Your task to perform on an android device: What's the weather going to be tomorrow? Image 0: 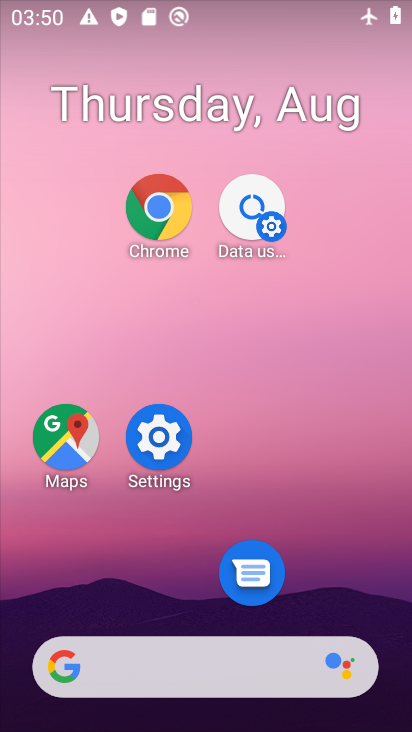
Step 0: drag from (326, 611) to (257, 134)
Your task to perform on an android device: What's the weather going to be tomorrow? Image 1: 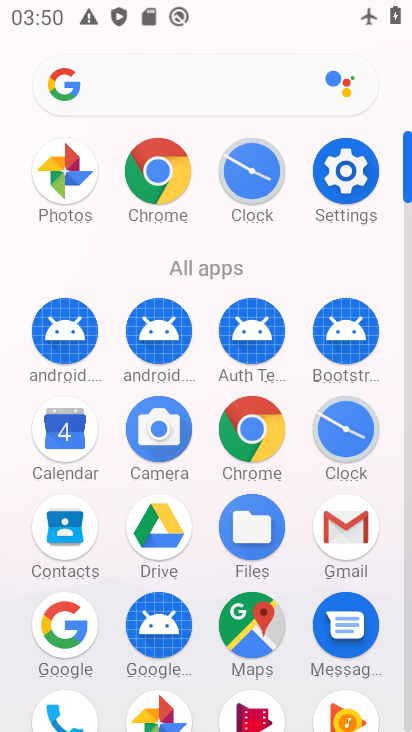
Step 1: click (161, 170)
Your task to perform on an android device: What's the weather going to be tomorrow? Image 2: 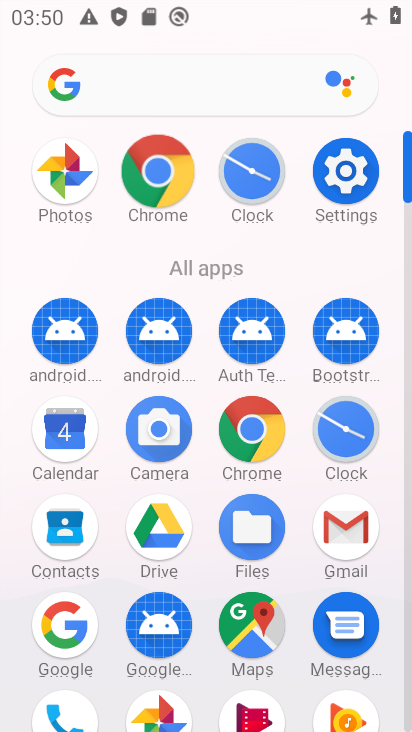
Step 2: click (161, 171)
Your task to perform on an android device: What's the weather going to be tomorrow? Image 3: 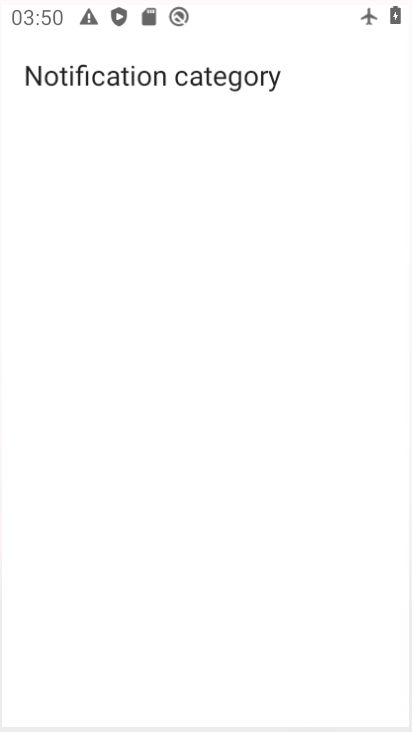
Step 3: click (163, 173)
Your task to perform on an android device: What's the weather going to be tomorrow? Image 4: 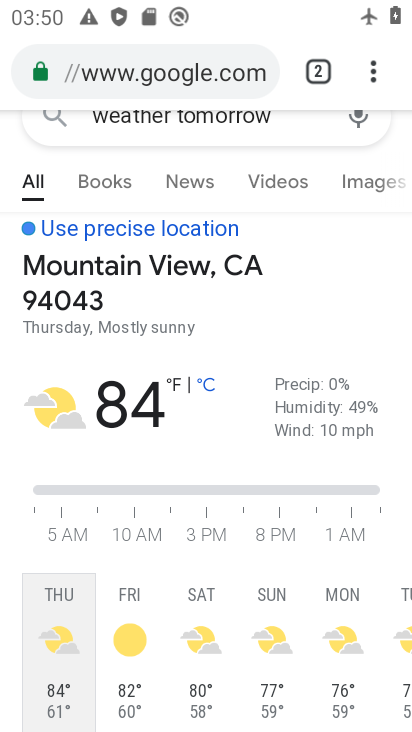
Step 4: task complete